Your task to perform on an android device: set default search engine in the chrome app Image 0: 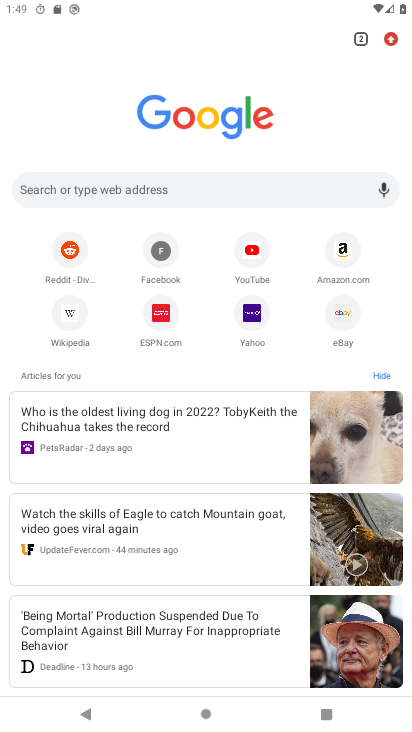
Step 0: drag from (392, 35) to (254, 370)
Your task to perform on an android device: set default search engine in the chrome app Image 1: 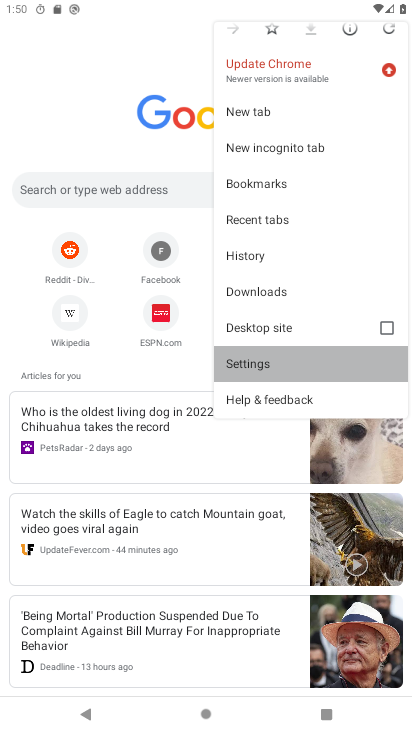
Step 1: click (254, 370)
Your task to perform on an android device: set default search engine in the chrome app Image 2: 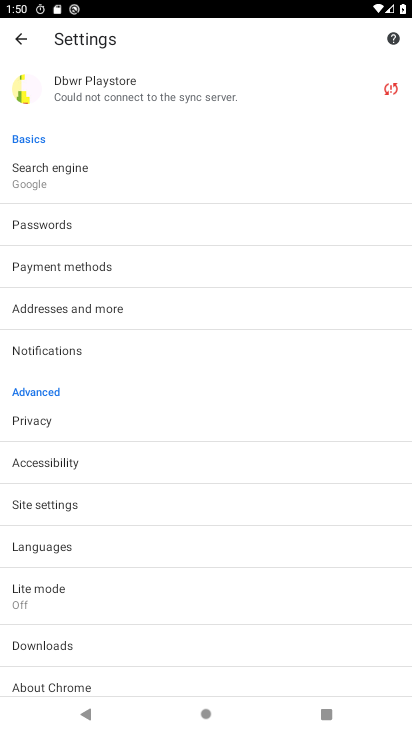
Step 2: drag from (282, 711) to (169, 264)
Your task to perform on an android device: set default search engine in the chrome app Image 3: 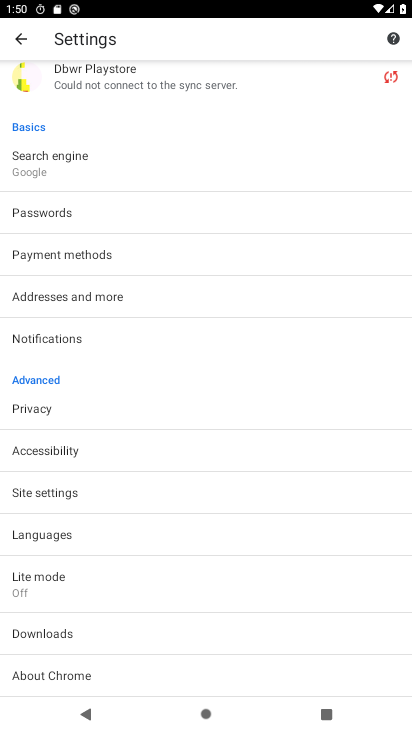
Step 3: click (22, 157)
Your task to perform on an android device: set default search engine in the chrome app Image 4: 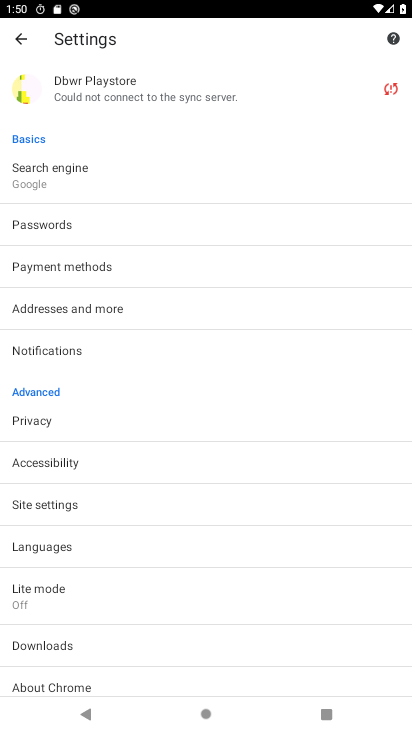
Step 4: click (28, 180)
Your task to perform on an android device: set default search engine in the chrome app Image 5: 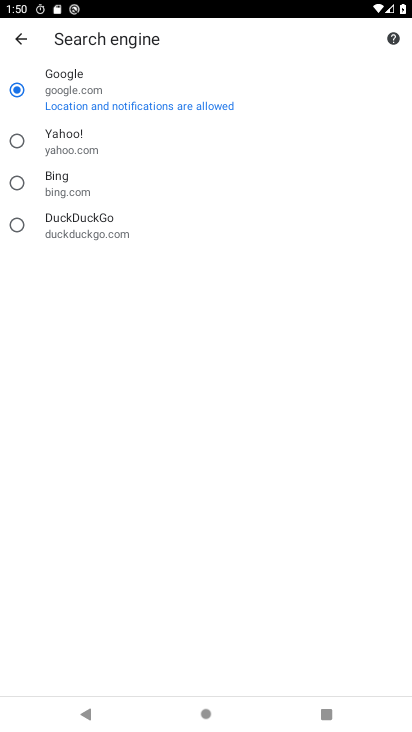
Step 5: click (42, 88)
Your task to perform on an android device: set default search engine in the chrome app Image 6: 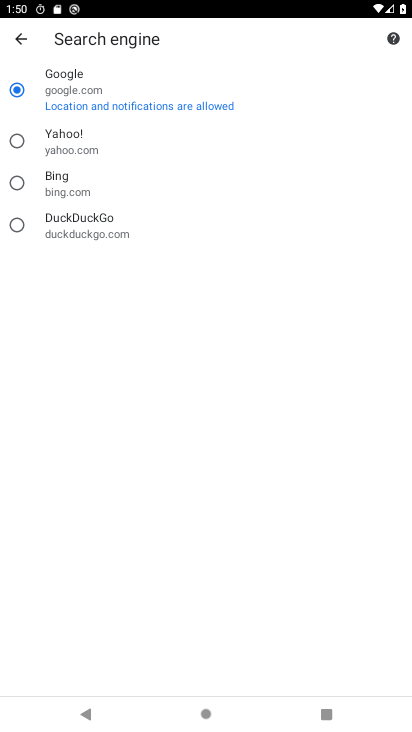
Step 6: task complete